Your task to perform on an android device: open chrome and create a bookmark for the current page Image 0: 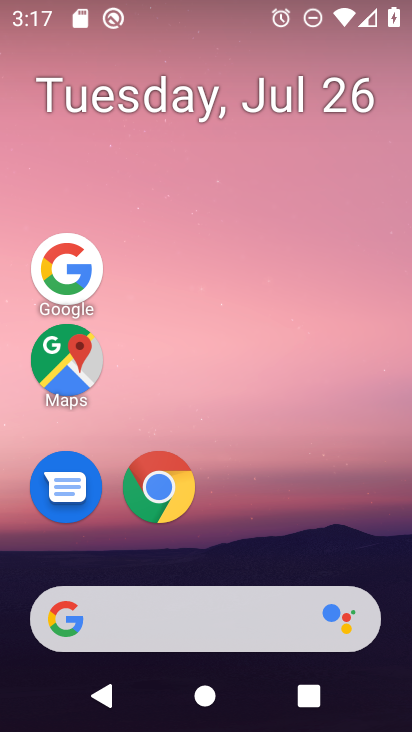
Step 0: drag from (242, 611) to (266, 122)
Your task to perform on an android device: open chrome and create a bookmark for the current page Image 1: 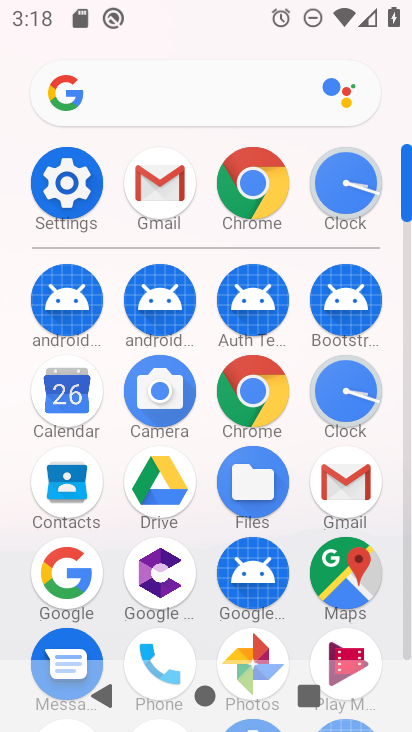
Step 1: click (242, 211)
Your task to perform on an android device: open chrome and create a bookmark for the current page Image 2: 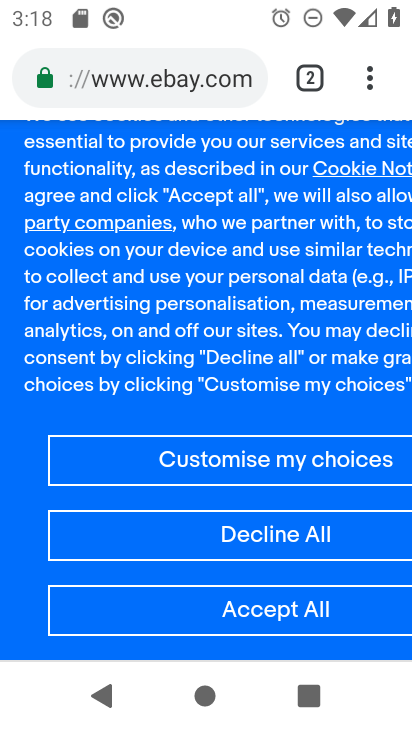
Step 2: click (370, 86)
Your task to perform on an android device: open chrome and create a bookmark for the current page Image 3: 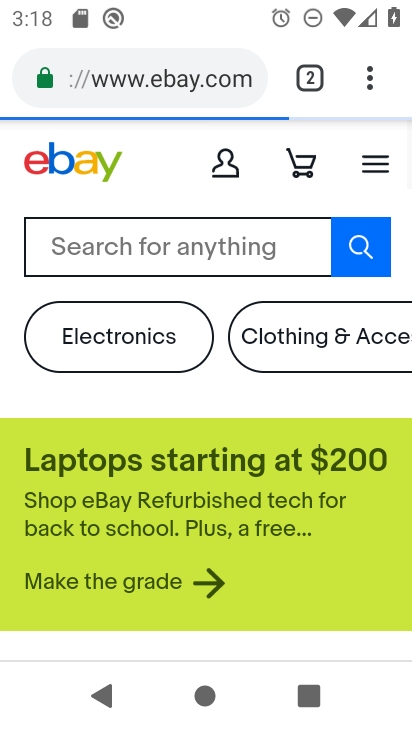
Step 3: click (369, 90)
Your task to perform on an android device: open chrome and create a bookmark for the current page Image 4: 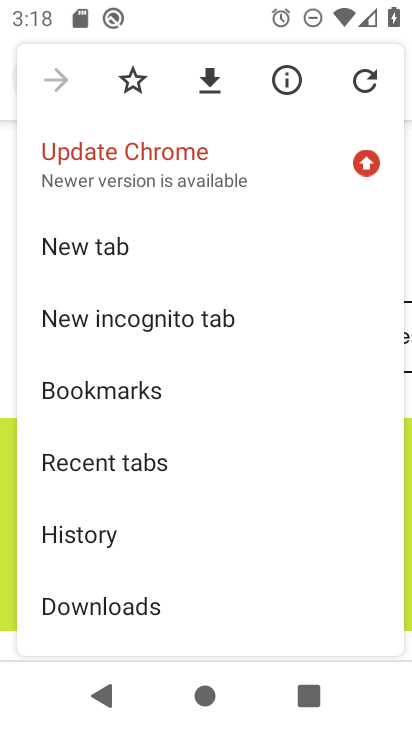
Step 4: click (142, 82)
Your task to perform on an android device: open chrome and create a bookmark for the current page Image 5: 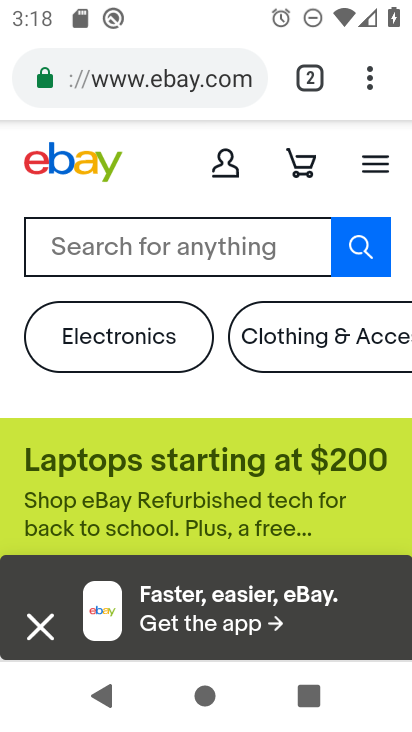
Step 5: task complete